Your task to perform on an android device: change alarm snooze length Image 0: 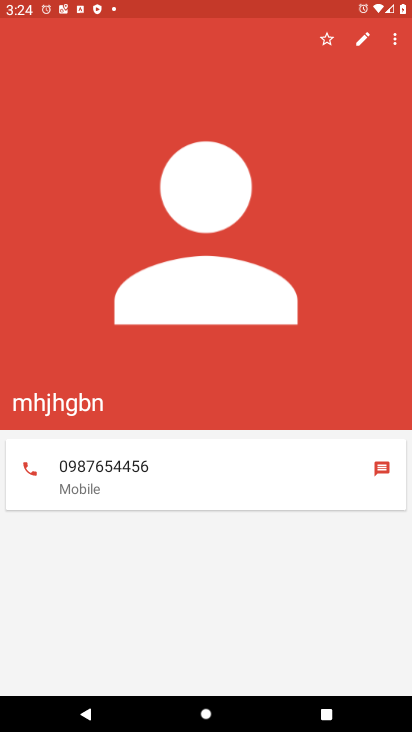
Step 0: press home button
Your task to perform on an android device: change alarm snooze length Image 1: 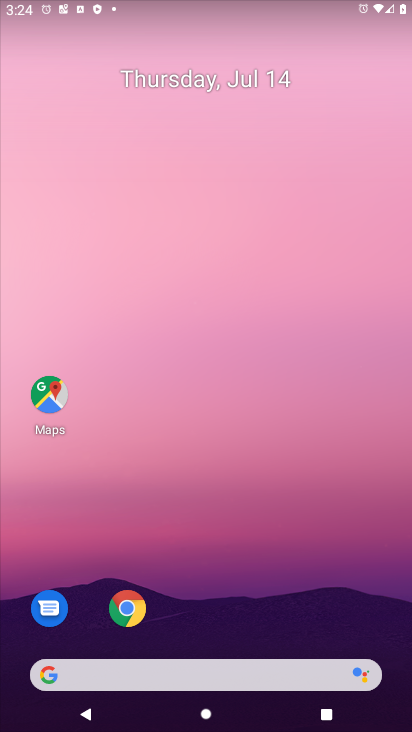
Step 1: drag from (379, 616) to (361, 115)
Your task to perform on an android device: change alarm snooze length Image 2: 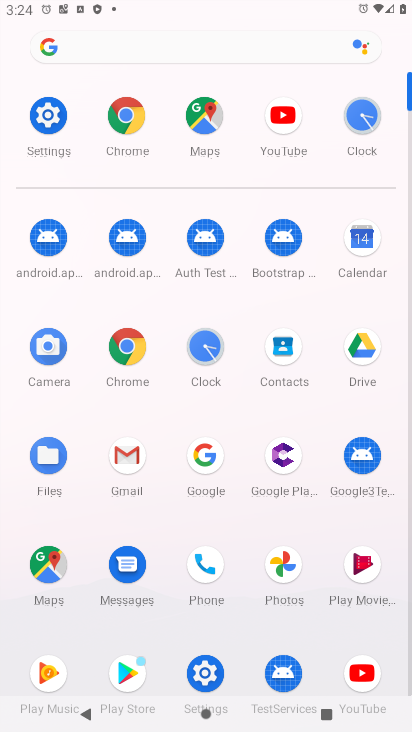
Step 2: click (203, 345)
Your task to perform on an android device: change alarm snooze length Image 3: 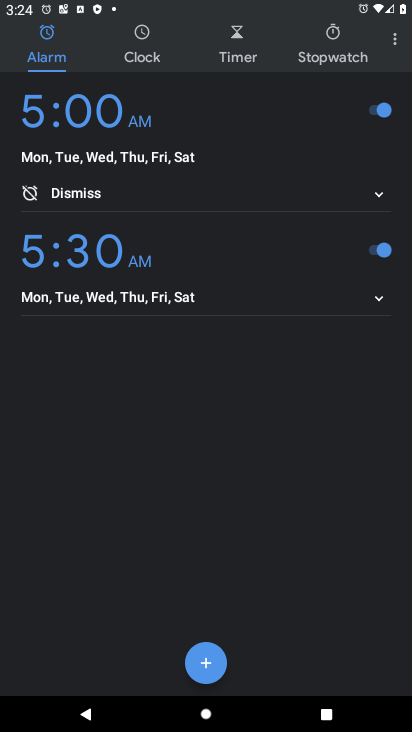
Step 3: click (393, 45)
Your task to perform on an android device: change alarm snooze length Image 4: 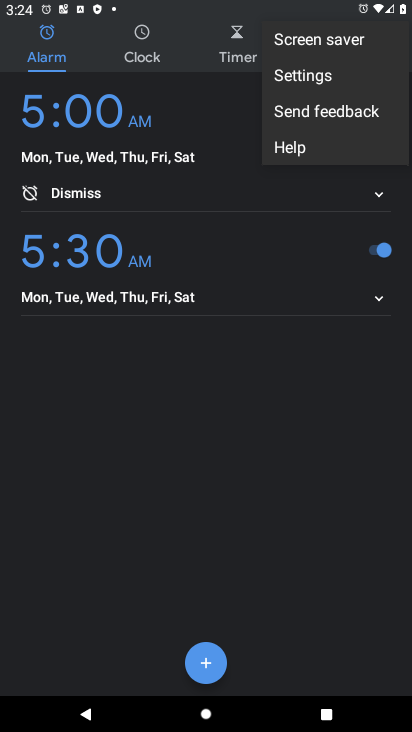
Step 4: click (285, 78)
Your task to perform on an android device: change alarm snooze length Image 5: 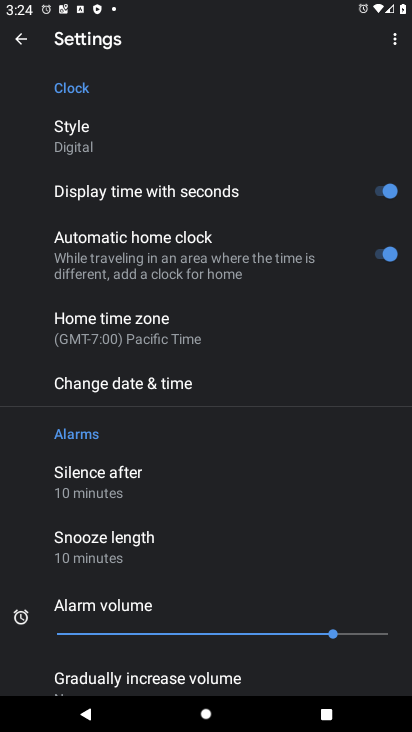
Step 5: drag from (211, 546) to (239, 376)
Your task to perform on an android device: change alarm snooze length Image 6: 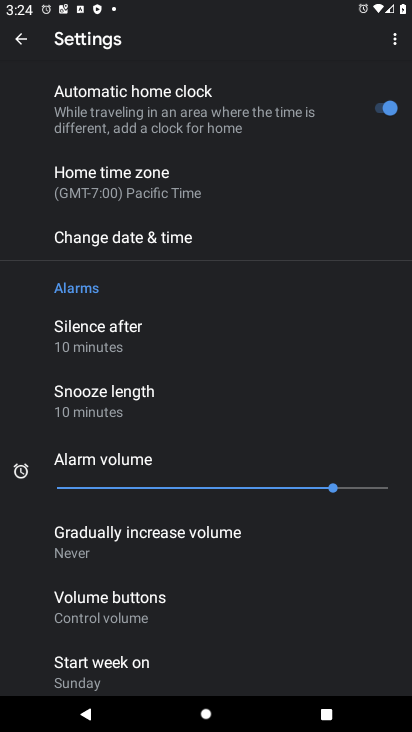
Step 6: click (98, 392)
Your task to perform on an android device: change alarm snooze length Image 7: 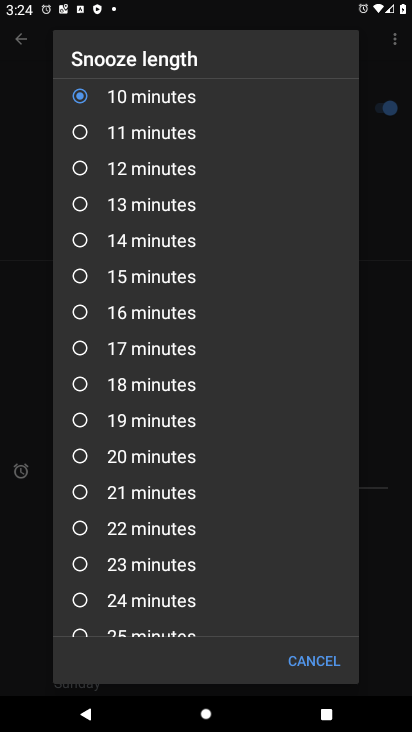
Step 7: click (79, 270)
Your task to perform on an android device: change alarm snooze length Image 8: 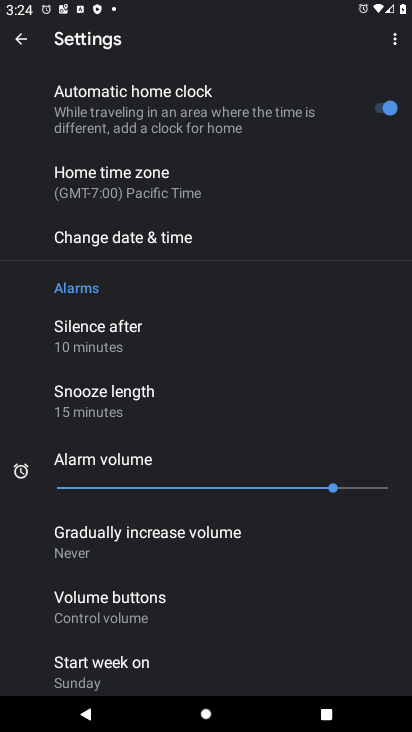
Step 8: task complete